Your task to perform on an android device: Open ESPN.com Image 0: 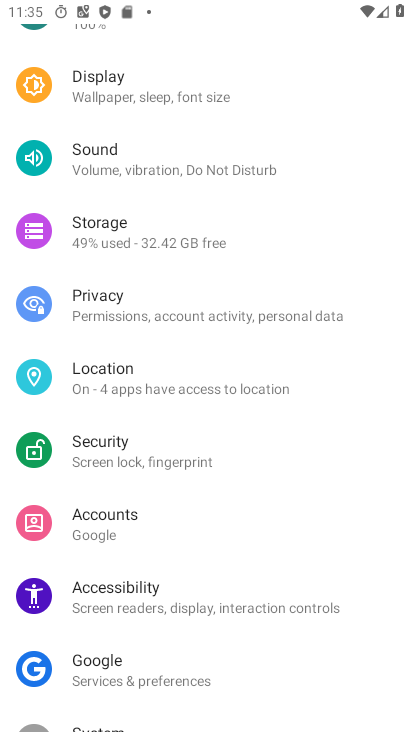
Step 0: press home button
Your task to perform on an android device: Open ESPN.com Image 1: 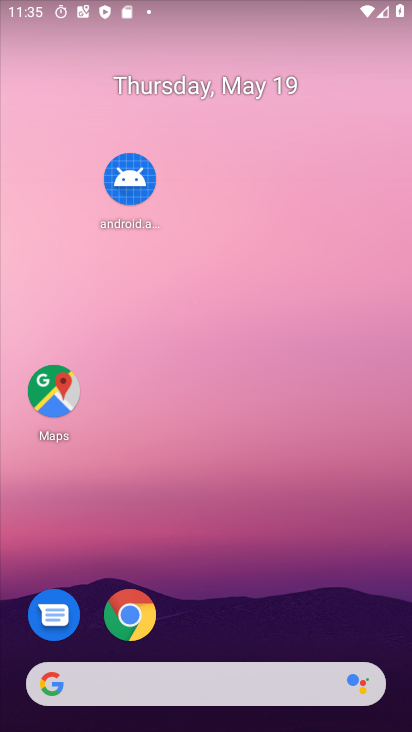
Step 1: click (125, 611)
Your task to perform on an android device: Open ESPN.com Image 2: 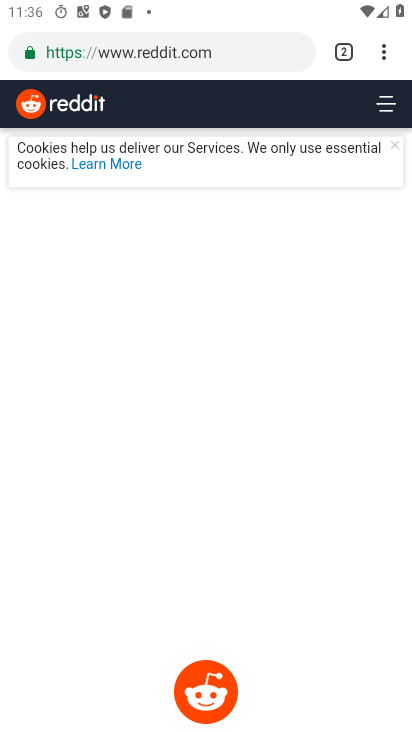
Step 2: task complete